Your task to perform on an android device: turn off notifications settings in the gmail app Image 0: 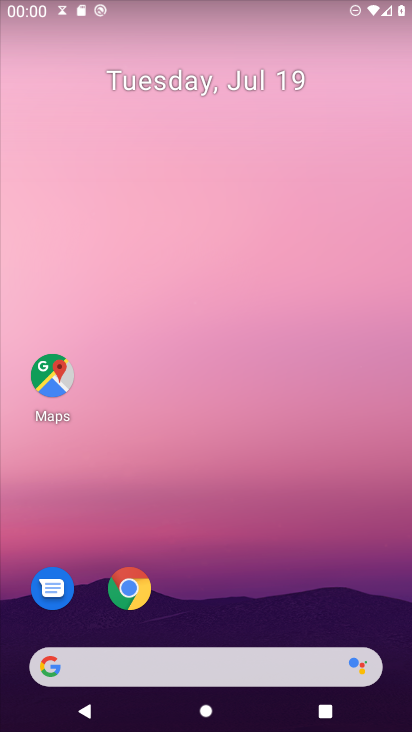
Step 0: press home button
Your task to perform on an android device: turn off notifications settings in the gmail app Image 1: 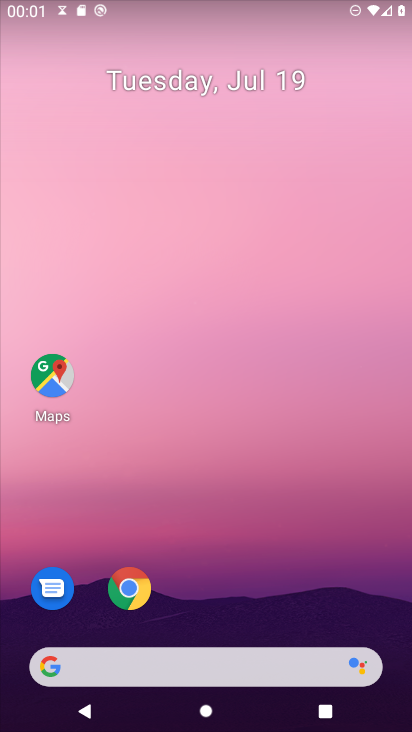
Step 1: drag from (279, 603) to (276, 31)
Your task to perform on an android device: turn off notifications settings in the gmail app Image 2: 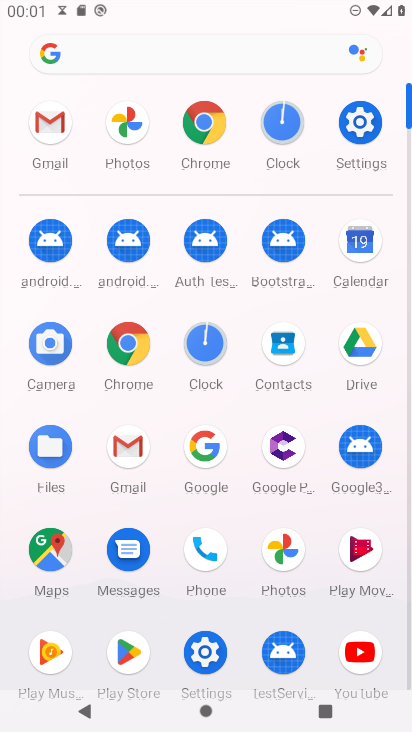
Step 2: click (56, 127)
Your task to perform on an android device: turn off notifications settings in the gmail app Image 3: 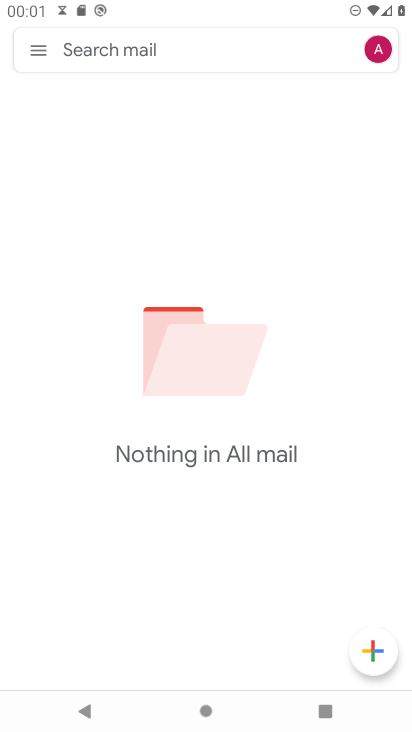
Step 3: click (29, 52)
Your task to perform on an android device: turn off notifications settings in the gmail app Image 4: 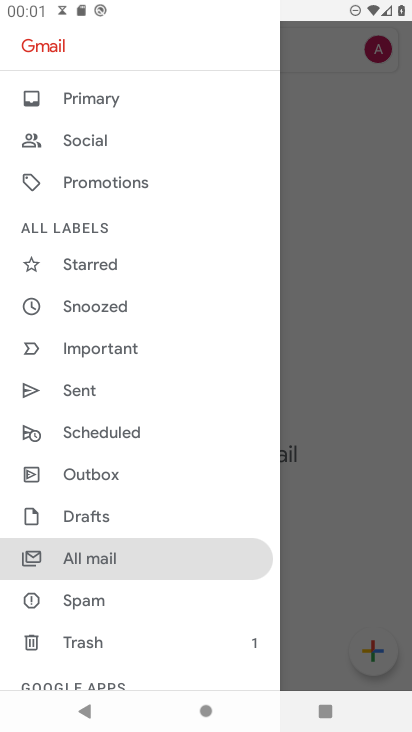
Step 4: drag from (111, 673) to (150, 198)
Your task to perform on an android device: turn off notifications settings in the gmail app Image 5: 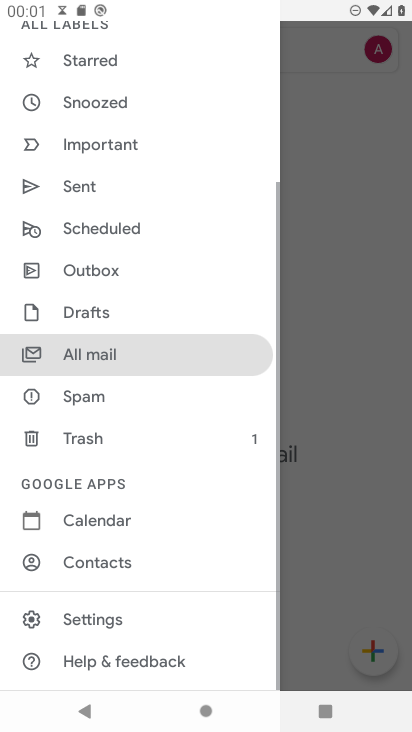
Step 5: click (91, 619)
Your task to perform on an android device: turn off notifications settings in the gmail app Image 6: 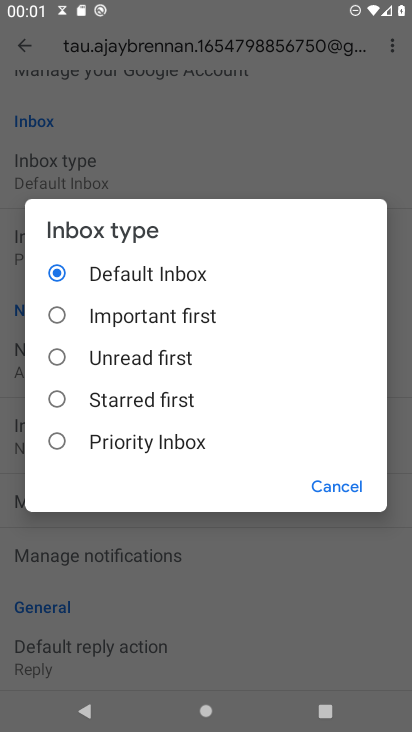
Step 6: click (337, 490)
Your task to perform on an android device: turn off notifications settings in the gmail app Image 7: 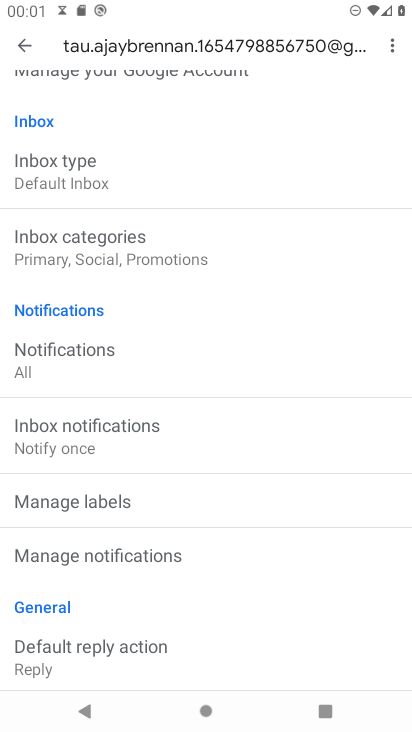
Step 7: click (81, 558)
Your task to perform on an android device: turn off notifications settings in the gmail app Image 8: 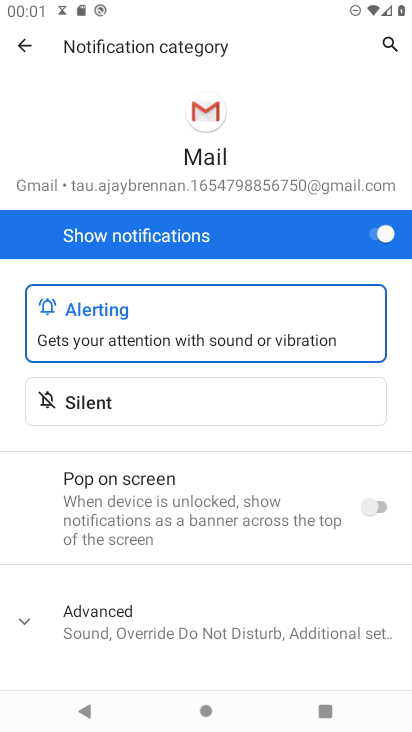
Step 8: click (380, 235)
Your task to perform on an android device: turn off notifications settings in the gmail app Image 9: 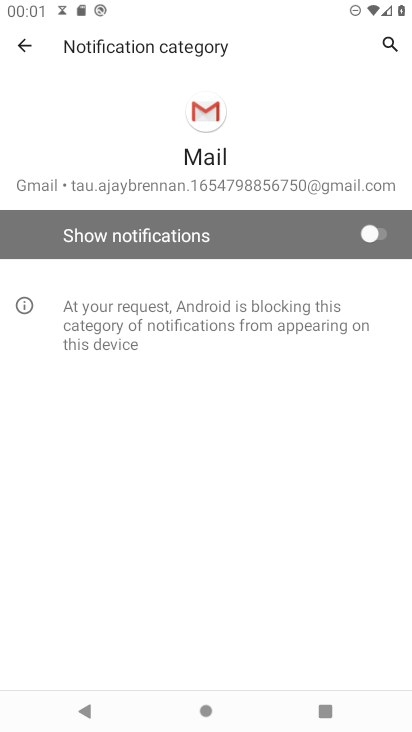
Step 9: task complete